Your task to perform on an android device: turn on notifications settings in the gmail app Image 0: 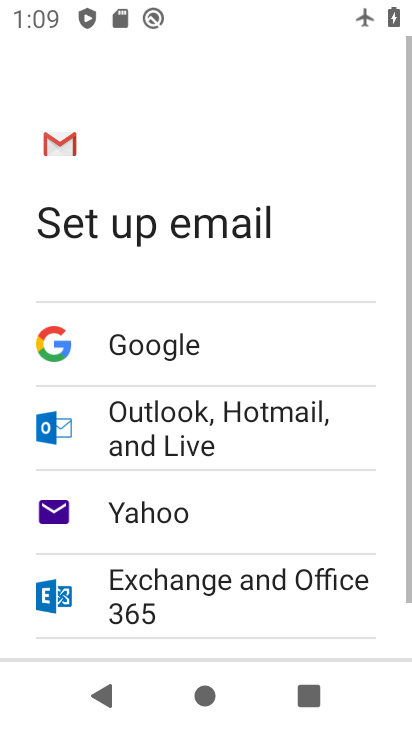
Step 0: press home button
Your task to perform on an android device: turn on notifications settings in the gmail app Image 1: 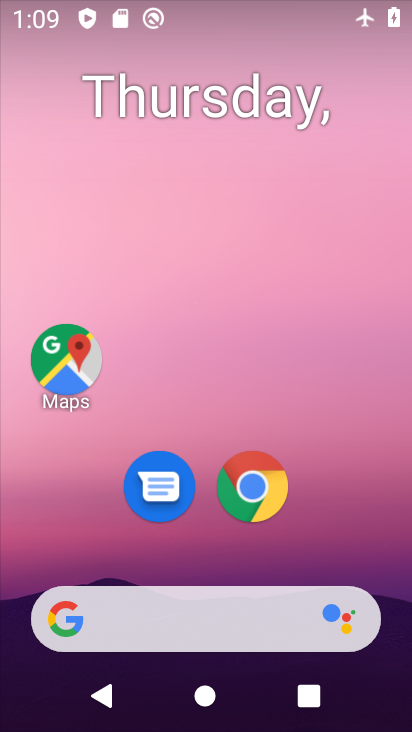
Step 1: drag from (381, 553) to (288, 48)
Your task to perform on an android device: turn on notifications settings in the gmail app Image 2: 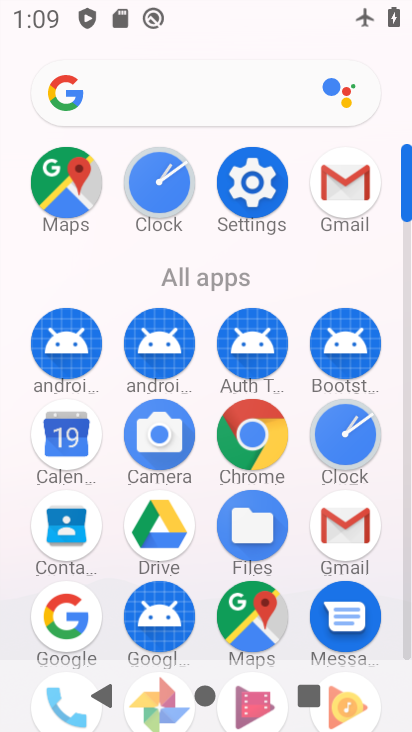
Step 2: click (355, 205)
Your task to perform on an android device: turn on notifications settings in the gmail app Image 3: 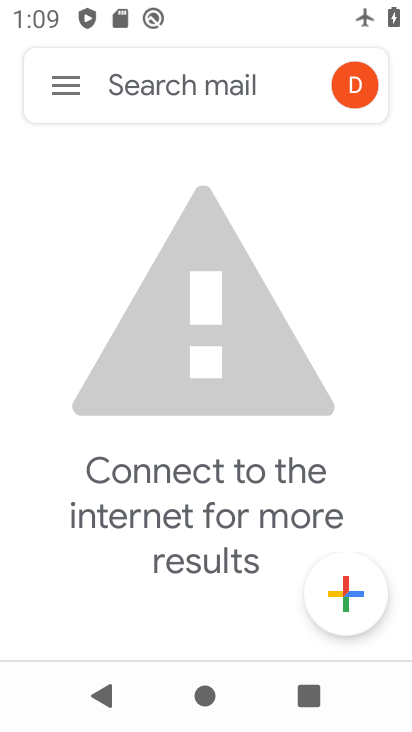
Step 3: click (73, 81)
Your task to perform on an android device: turn on notifications settings in the gmail app Image 4: 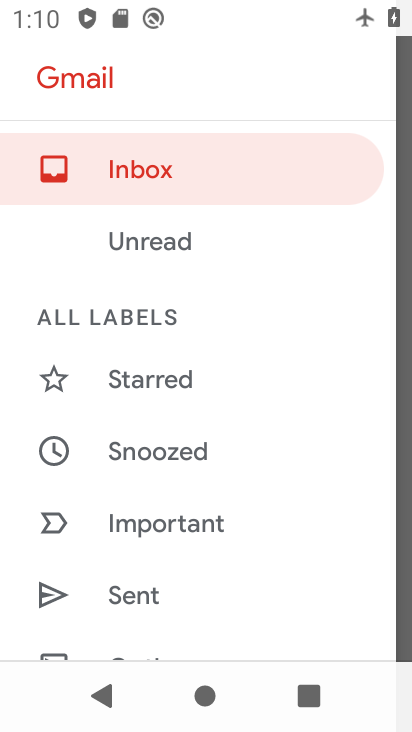
Step 4: drag from (262, 613) to (253, 124)
Your task to perform on an android device: turn on notifications settings in the gmail app Image 5: 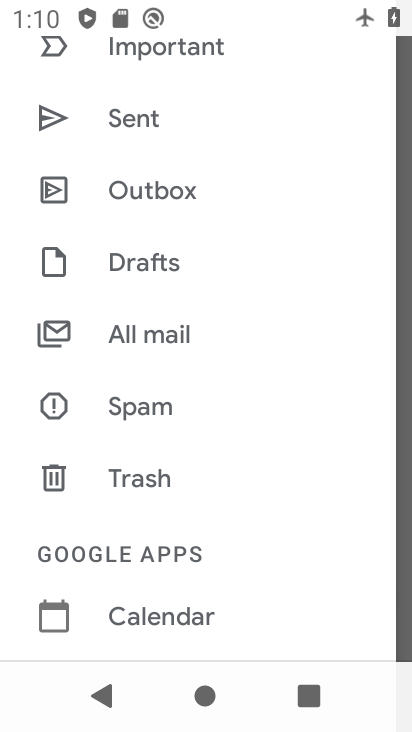
Step 5: drag from (293, 568) to (250, 85)
Your task to perform on an android device: turn on notifications settings in the gmail app Image 6: 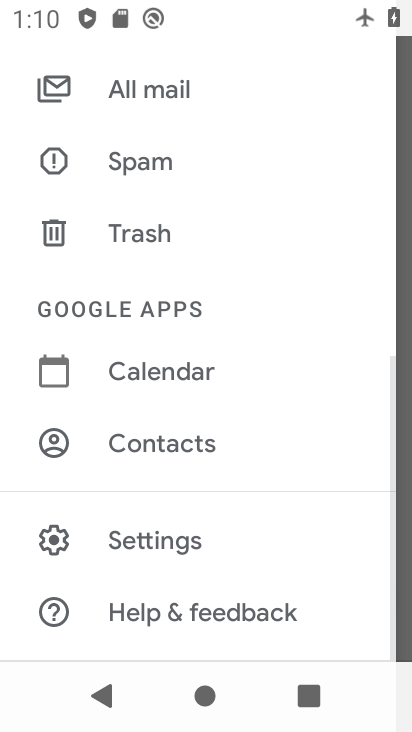
Step 6: click (195, 533)
Your task to perform on an android device: turn on notifications settings in the gmail app Image 7: 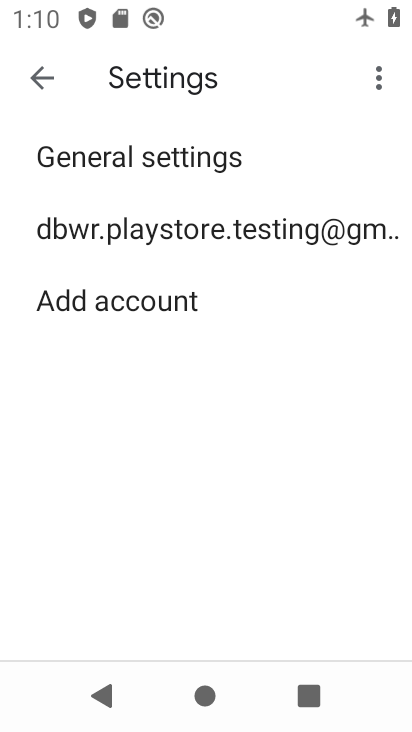
Step 7: click (364, 220)
Your task to perform on an android device: turn on notifications settings in the gmail app Image 8: 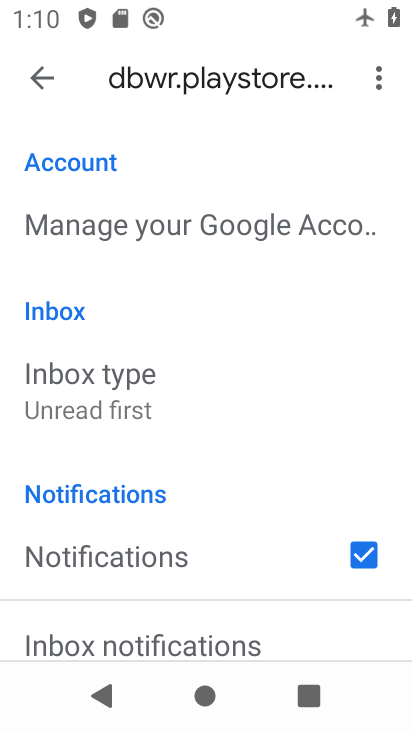
Step 8: drag from (280, 652) to (220, 261)
Your task to perform on an android device: turn on notifications settings in the gmail app Image 9: 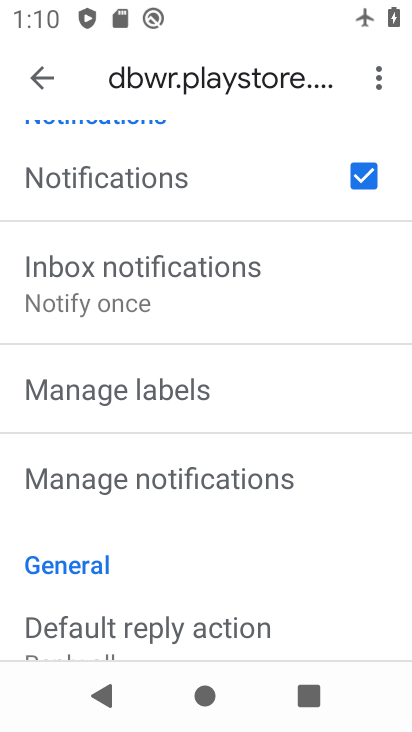
Step 9: click (239, 475)
Your task to perform on an android device: turn on notifications settings in the gmail app Image 10: 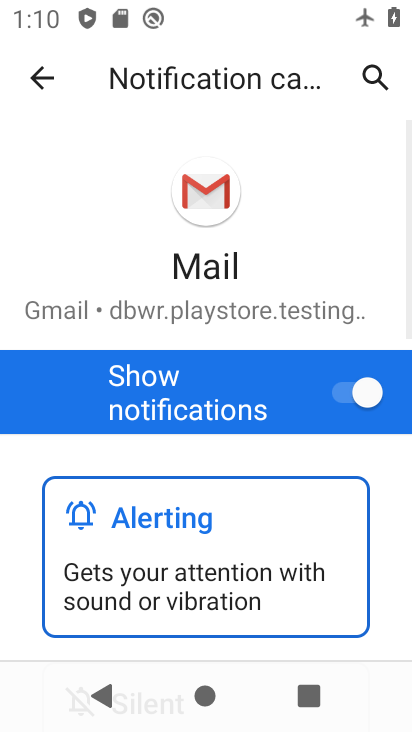
Step 10: drag from (389, 586) to (342, 141)
Your task to perform on an android device: turn on notifications settings in the gmail app Image 11: 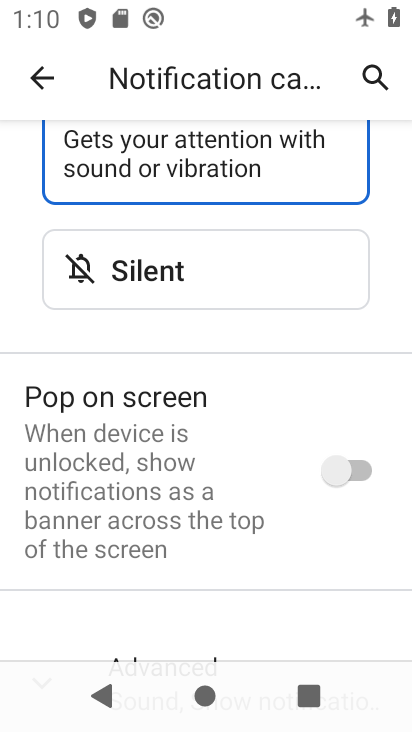
Step 11: click (396, 276)
Your task to perform on an android device: turn on notifications settings in the gmail app Image 12: 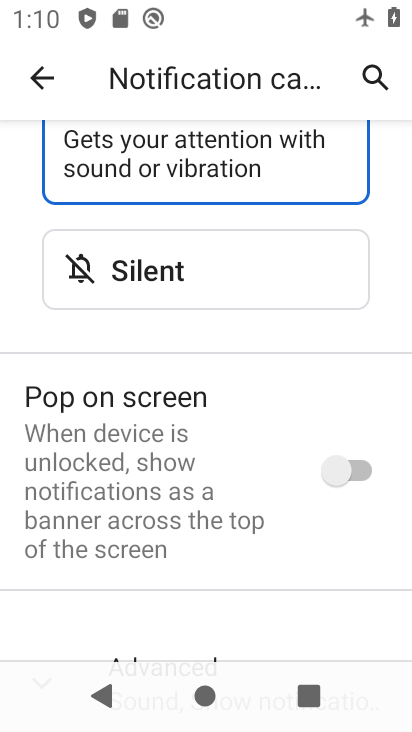
Step 12: click (360, 457)
Your task to perform on an android device: turn on notifications settings in the gmail app Image 13: 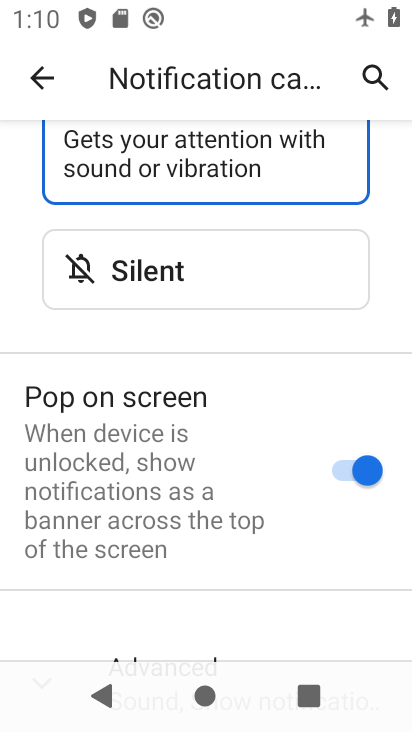
Step 13: task complete